Your task to perform on an android device: snooze an email in the gmail app Image 0: 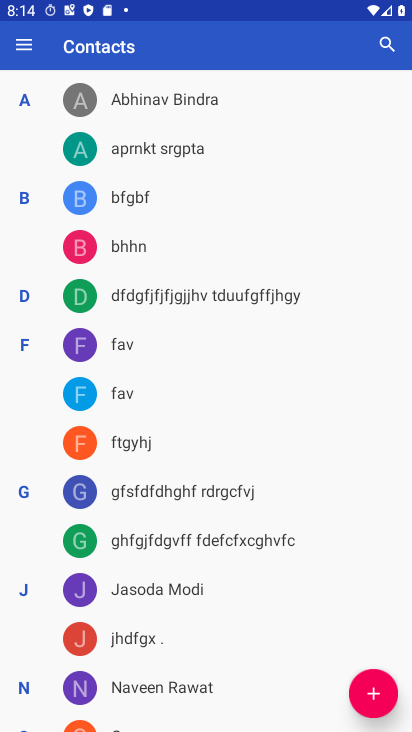
Step 0: press home button
Your task to perform on an android device: snooze an email in the gmail app Image 1: 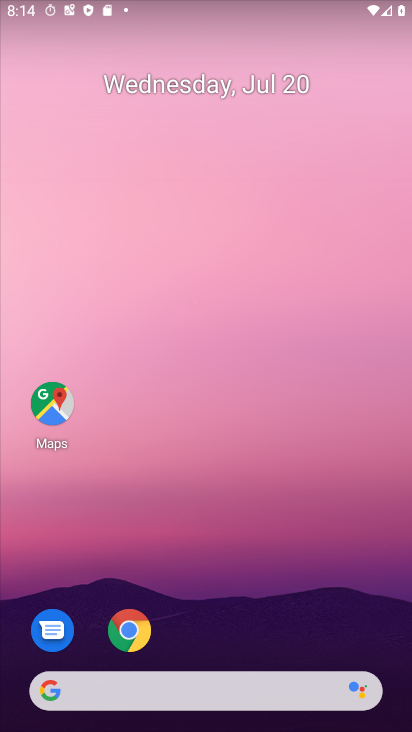
Step 1: drag from (208, 522) to (254, 225)
Your task to perform on an android device: snooze an email in the gmail app Image 2: 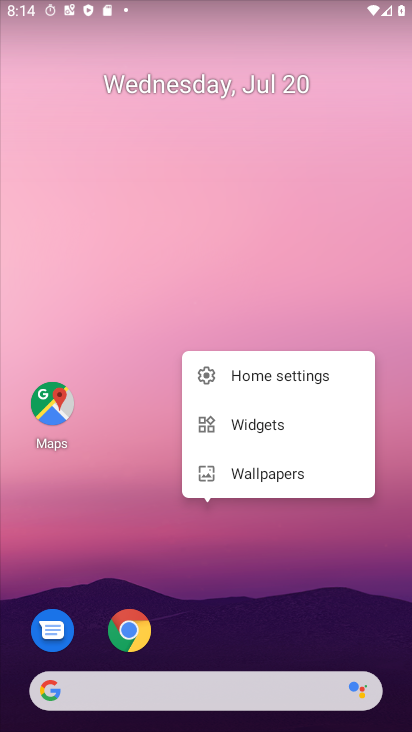
Step 2: click (356, 241)
Your task to perform on an android device: snooze an email in the gmail app Image 3: 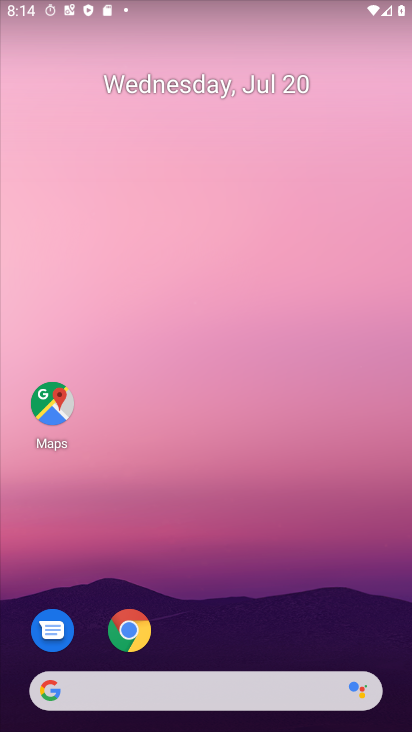
Step 3: drag from (244, 543) to (255, 247)
Your task to perform on an android device: snooze an email in the gmail app Image 4: 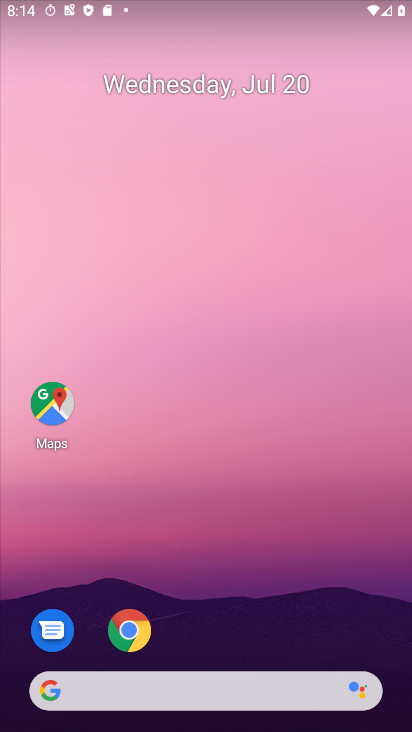
Step 4: drag from (210, 640) to (297, 72)
Your task to perform on an android device: snooze an email in the gmail app Image 5: 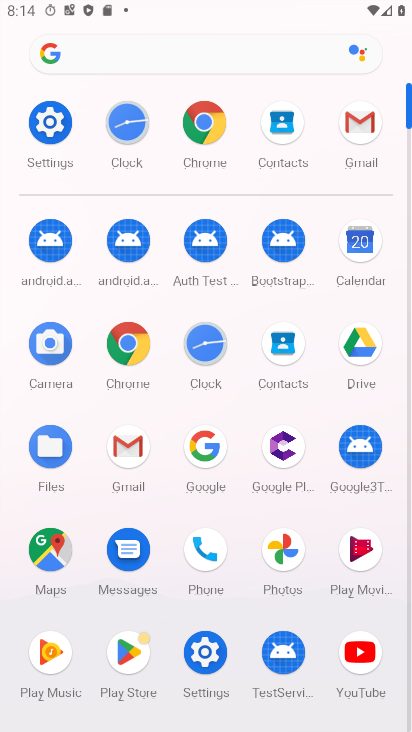
Step 5: click (128, 462)
Your task to perform on an android device: snooze an email in the gmail app Image 6: 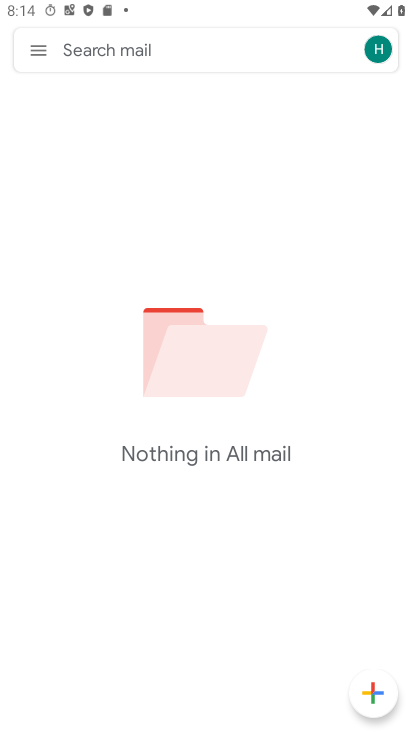
Step 6: click (40, 61)
Your task to perform on an android device: snooze an email in the gmail app Image 7: 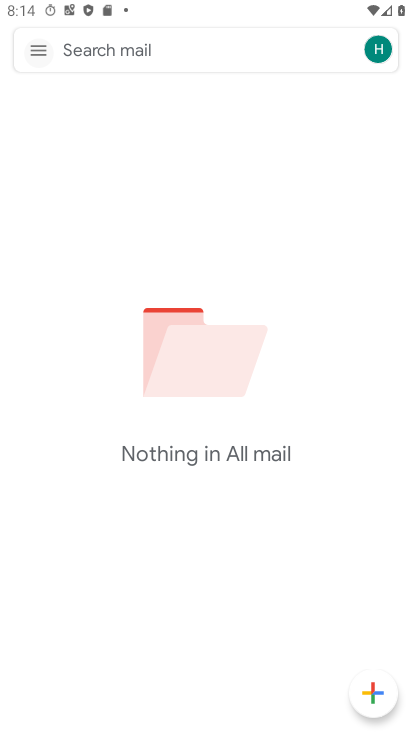
Step 7: click (40, 61)
Your task to perform on an android device: snooze an email in the gmail app Image 8: 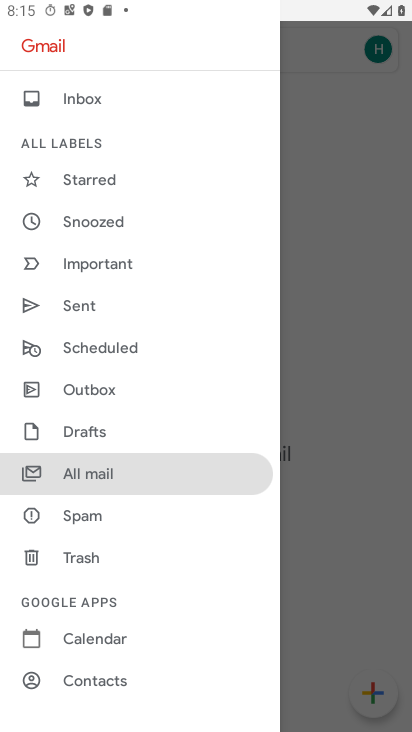
Step 8: click (95, 225)
Your task to perform on an android device: snooze an email in the gmail app Image 9: 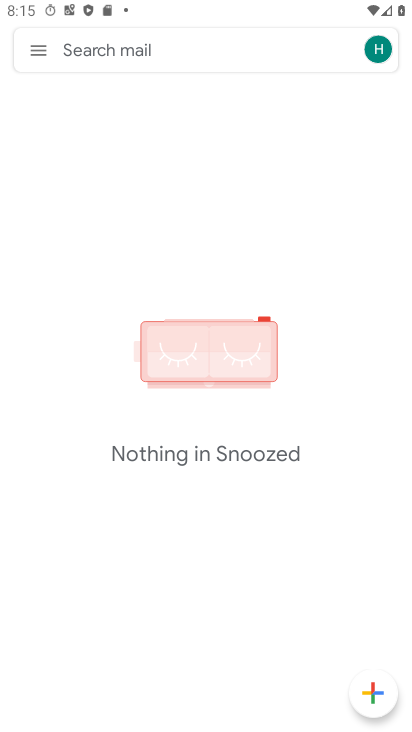
Step 9: click (47, 50)
Your task to perform on an android device: snooze an email in the gmail app Image 10: 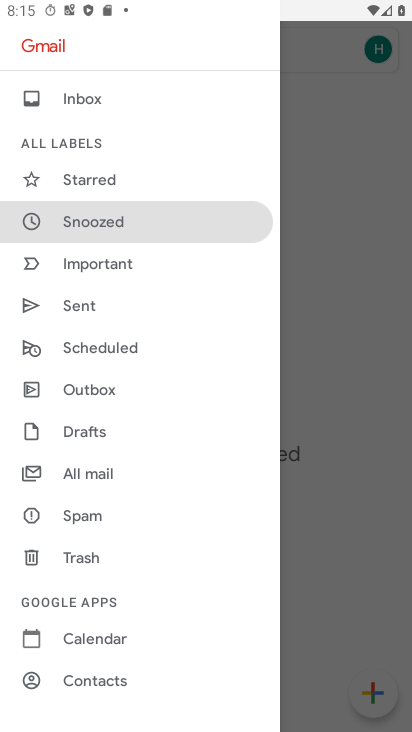
Step 10: click (112, 484)
Your task to perform on an android device: snooze an email in the gmail app Image 11: 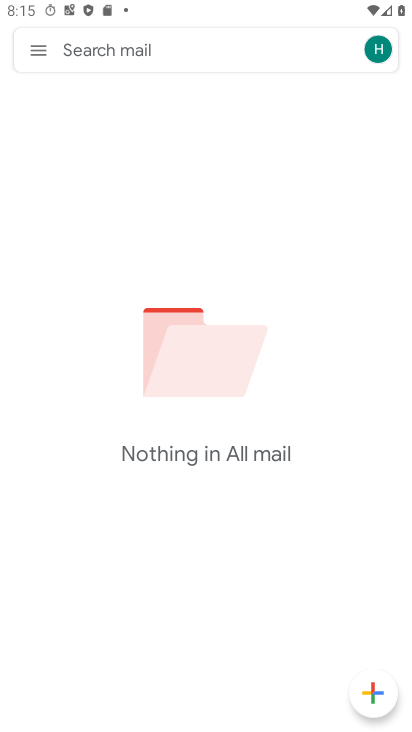
Step 11: task complete